Your task to perform on an android device: delete a single message in the gmail app Image 0: 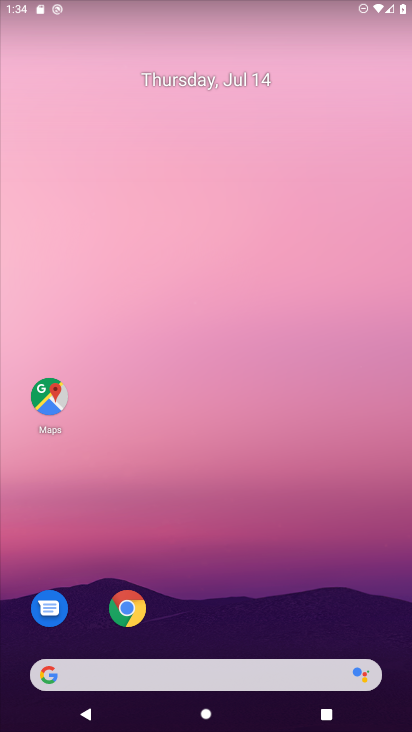
Step 0: drag from (204, 520) to (201, 85)
Your task to perform on an android device: delete a single message in the gmail app Image 1: 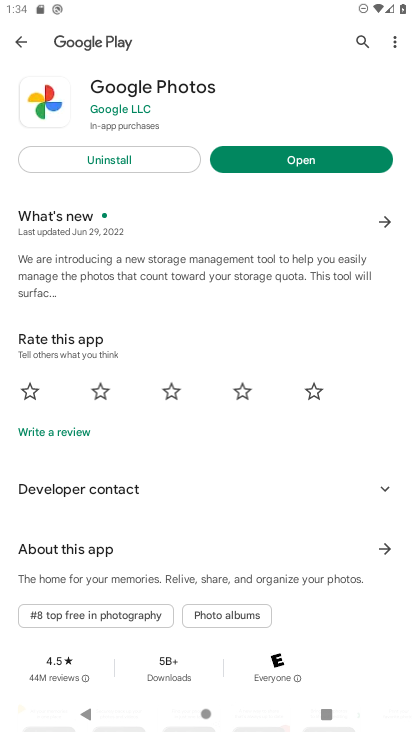
Step 1: press home button
Your task to perform on an android device: delete a single message in the gmail app Image 2: 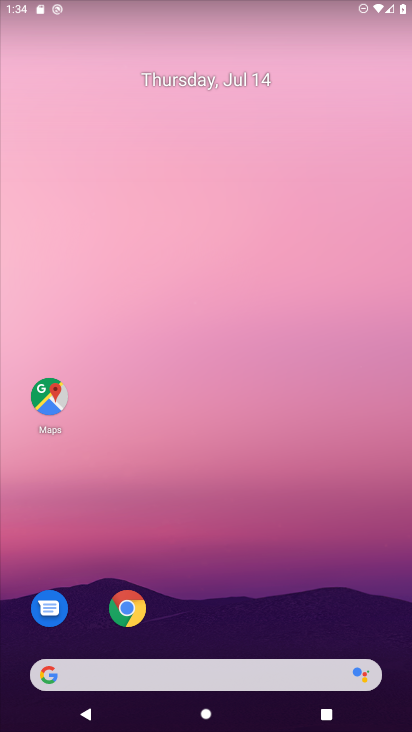
Step 2: drag from (246, 675) to (218, 168)
Your task to perform on an android device: delete a single message in the gmail app Image 3: 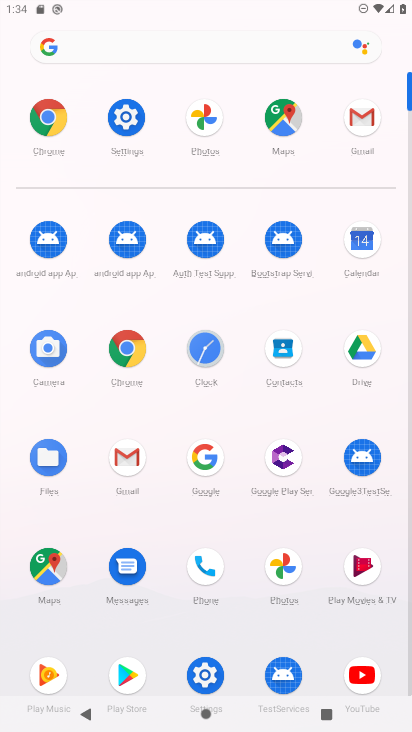
Step 3: click (126, 458)
Your task to perform on an android device: delete a single message in the gmail app Image 4: 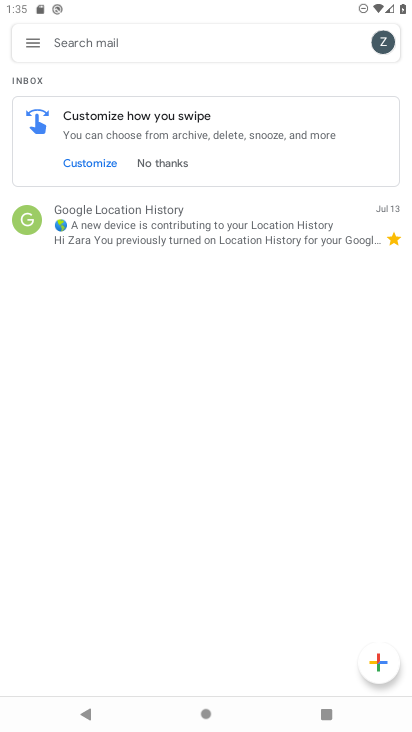
Step 4: click (194, 241)
Your task to perform on an android device: delete a single message in the gmail app Image 5: 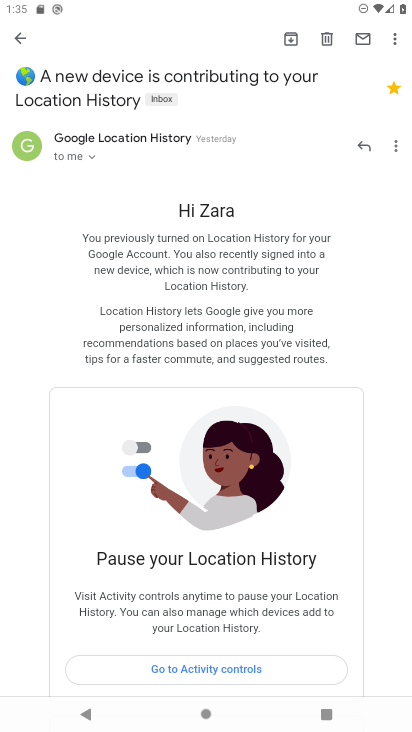
Step 5: click (323, 35)
Your task to perform on an android device: delete a single message in the gmail app Image 6: 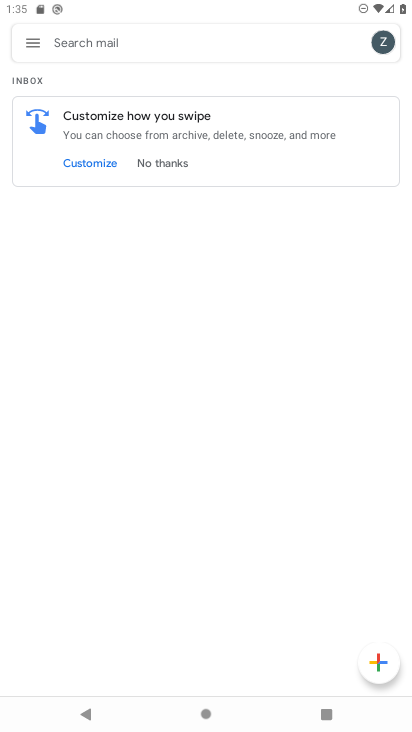
Step 6: task complete